Your task to perform on an android device: Go to battery settings Image 0: 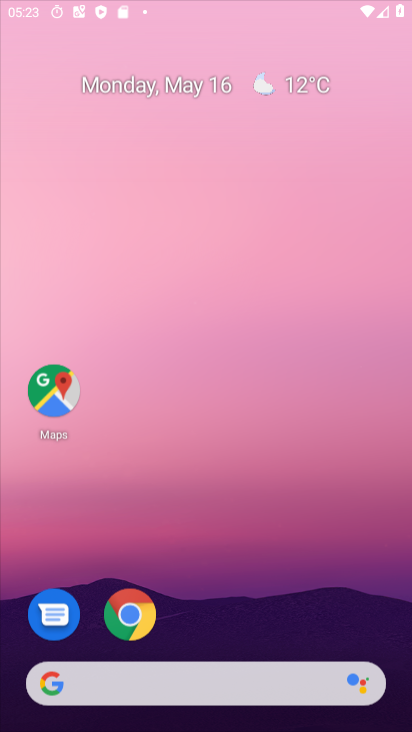
Step 0: drag from (267, 645) to (91, 42)
Your task to perform on an android device: Go to battery settings Image 1: 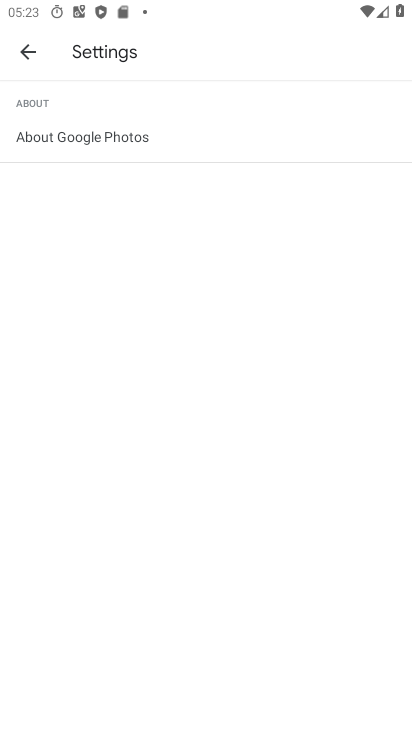
Step 1: click (19, 49)
Your task to perform on an android device: Go to battery settings Image 2: 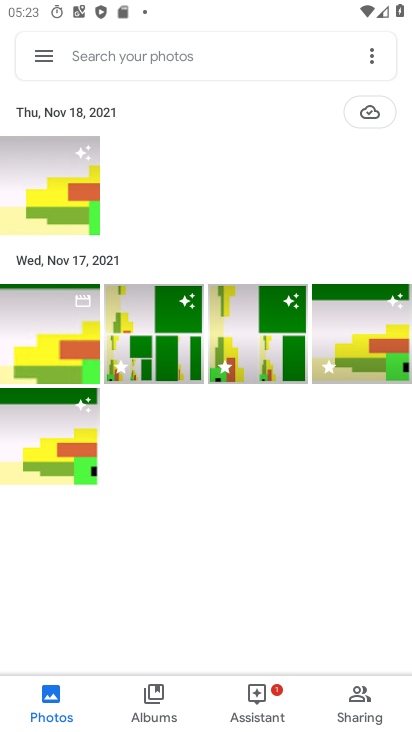
Step 2: press home button
Your task to perform on an android device: Go to battery settings Image 3: 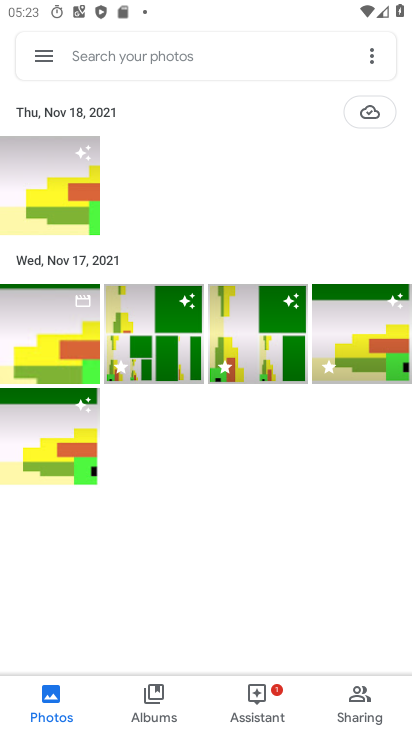
Step 3: press home button
Your task to perform on an android device: Go to battery settings Image 4: 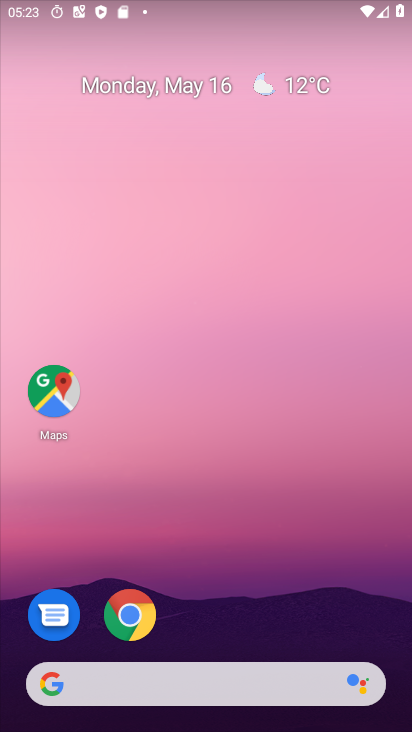
Step 4: drag from (279, 547) to (111, 79)
Your task to perform on an android device: Go to battery settings Image 5: 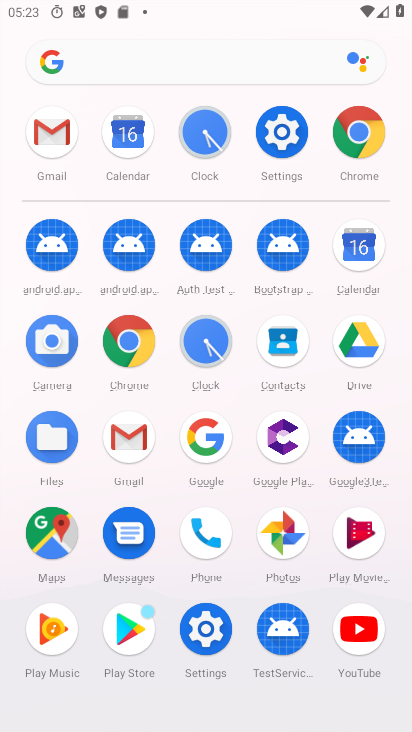
Step 5: click (195, 632)
Your task to perform on an android device: Go to battery settings Image 6: 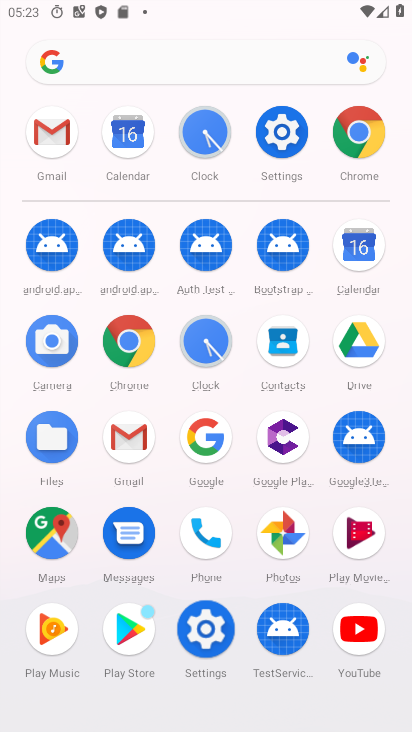
Step 6: click (197, 631)
Your task to perform on an android device: Go to battery settings Image 7: 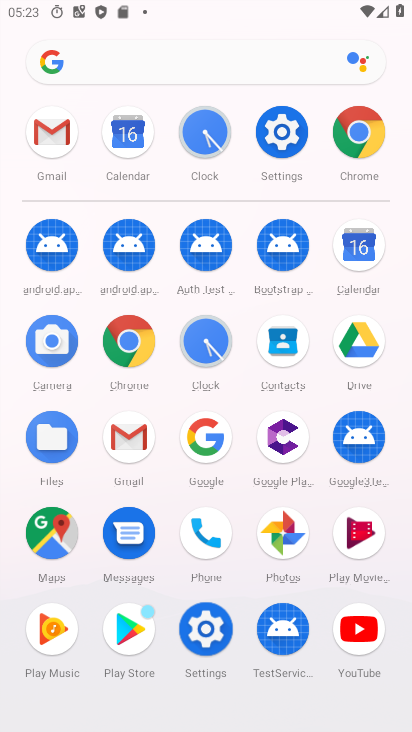
Step 7: click (199, 631)
Your task to perform on an android device: Go to battery settings Image 8: 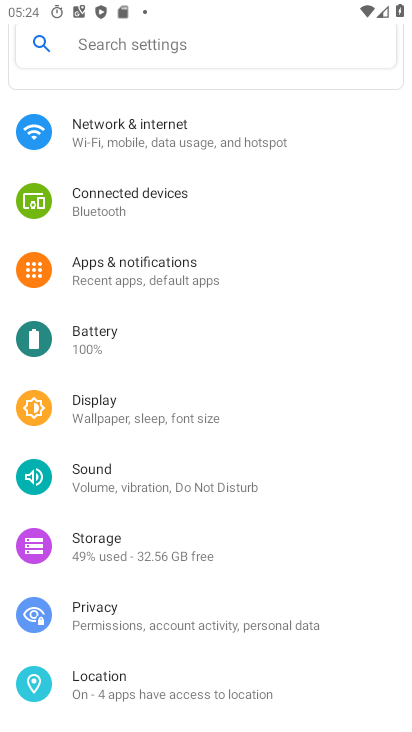
Step 8: click (80, 334)
Your task to perform on an android device: Go to battery settings Image 9: 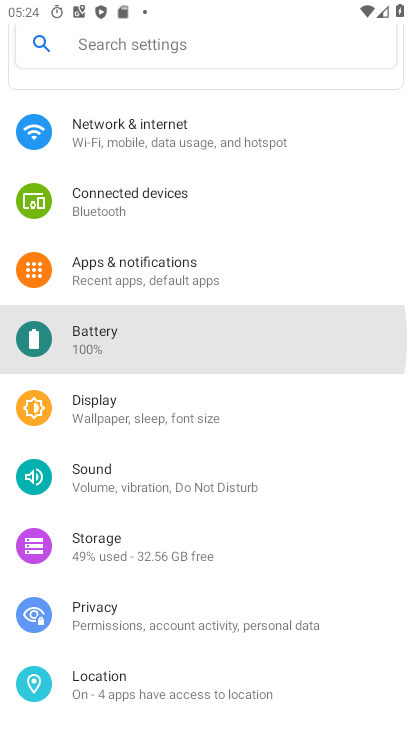
Step 9: click (80, 335)
Your task to perform on an android device: Go to battery settings Image 10: 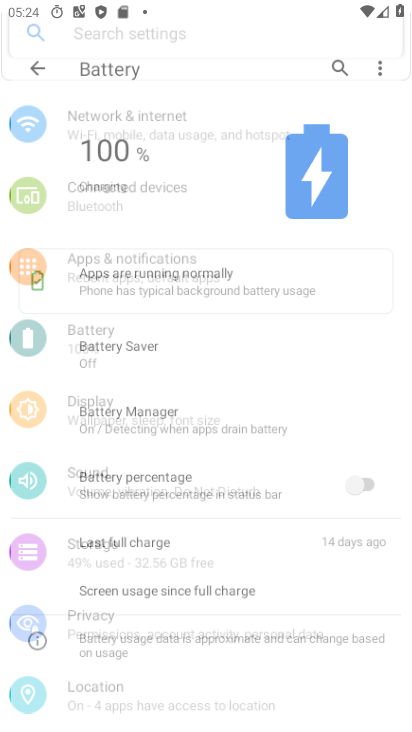
Step 10: click (87, 340)
Your task to perform on an android device: Go to battery settings Image 11: 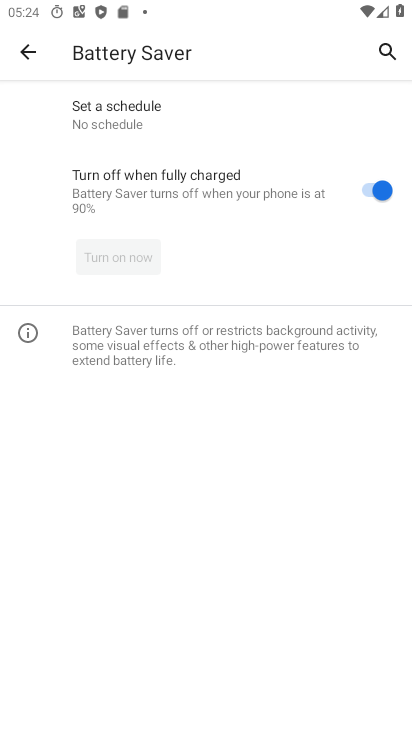
Step 11: click (28, 49)
Your task to perform on an android device: Go to battery settings Image 12: 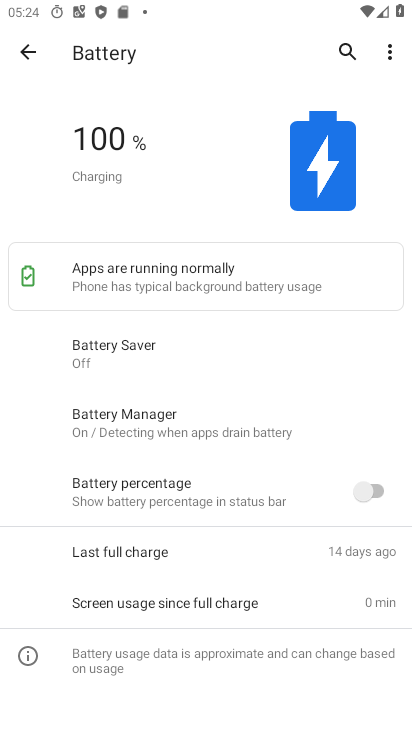
Step 12: task complete